Your task to perform on an android device: find snoozed emails in the gmail app Image 0: 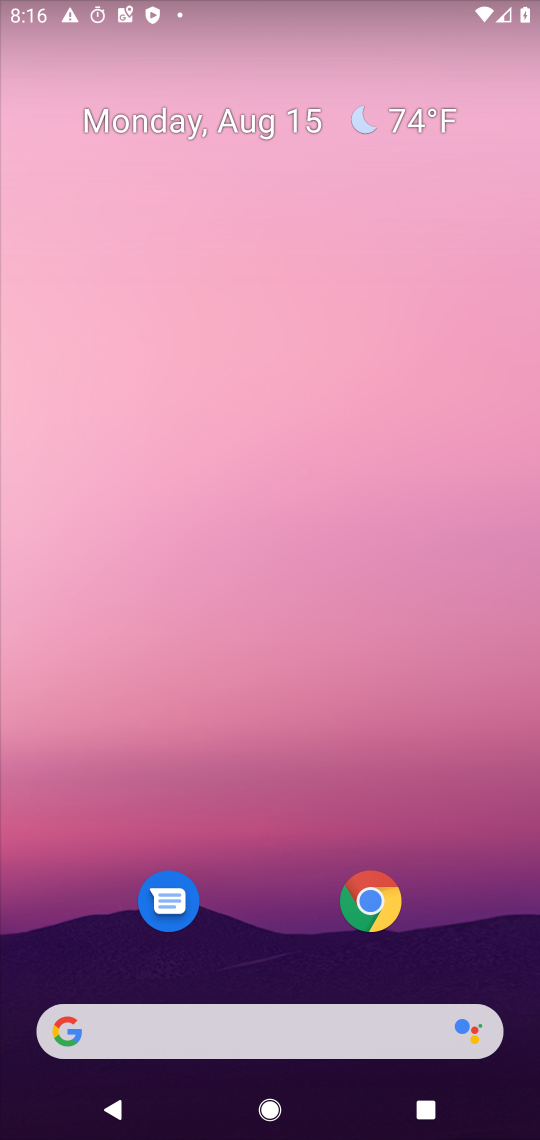
Step 0: drag from (266, 990) to (281, 19)
Your task to perform on an android device: find snoozed emails in the gmail app Image 1: 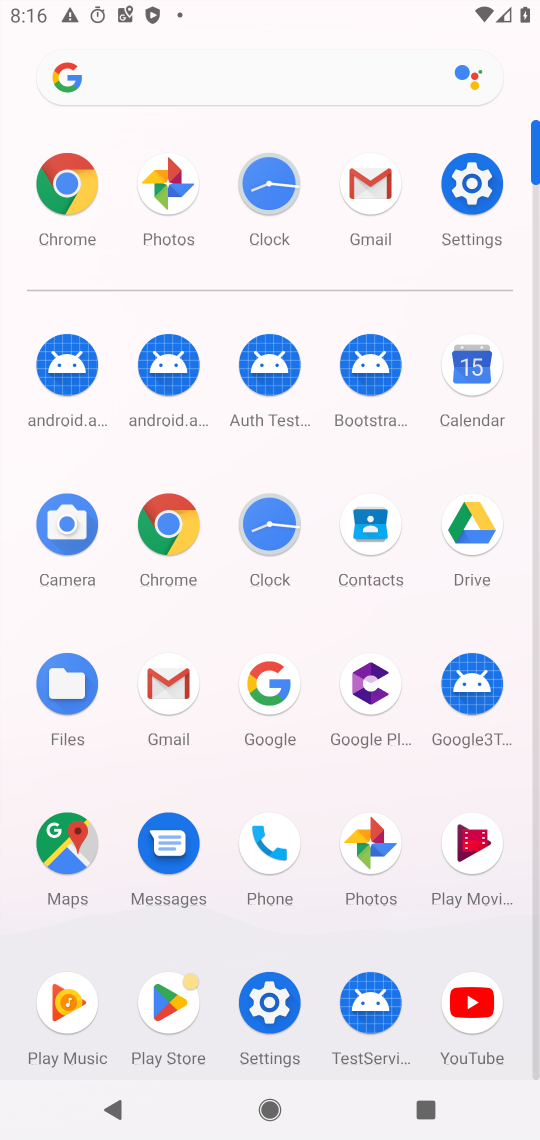
Step 1: click (162, 692)
Your task to perform on an android device: find snoozed emails in the gmail app Image 2: 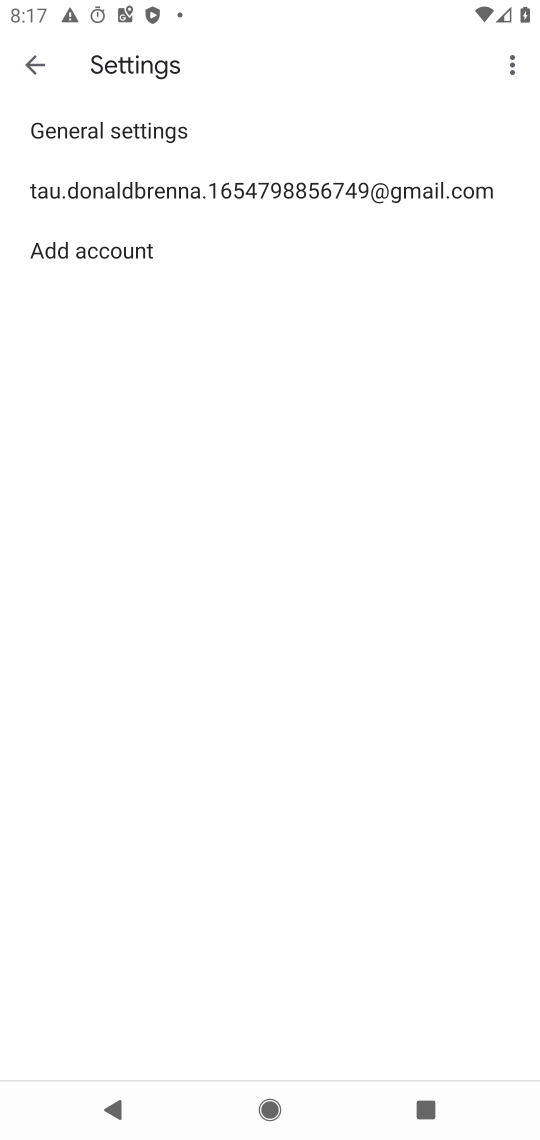
Step 2: click (40, 66)
Your task to perform on an android device: find snoozed emails in the gmail app Image 3: 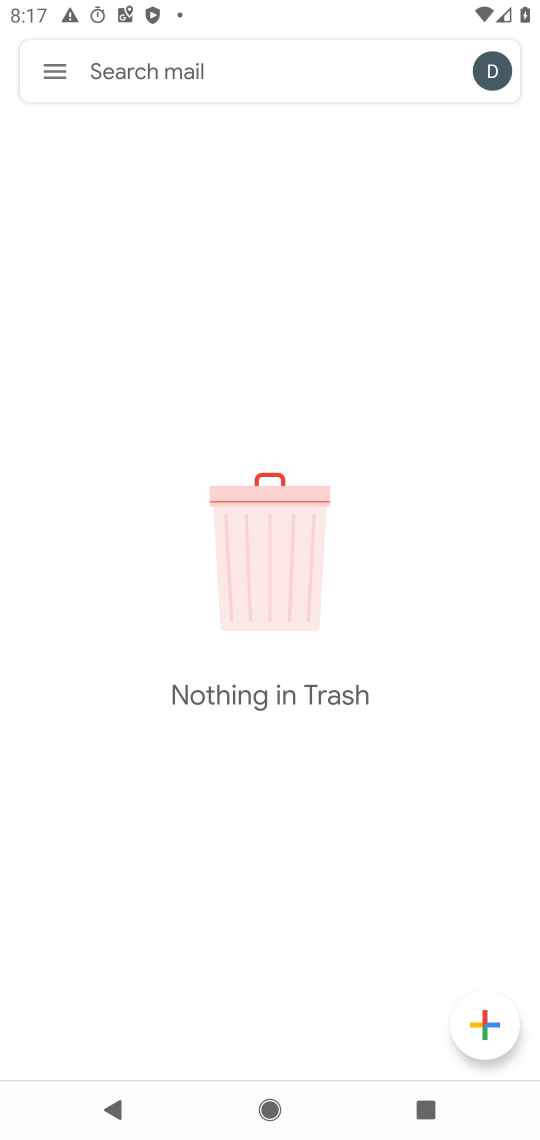
Step 3: click (46, 74)
Your task to perform on an android device: find snoozed emails in the gmail app Image 4: 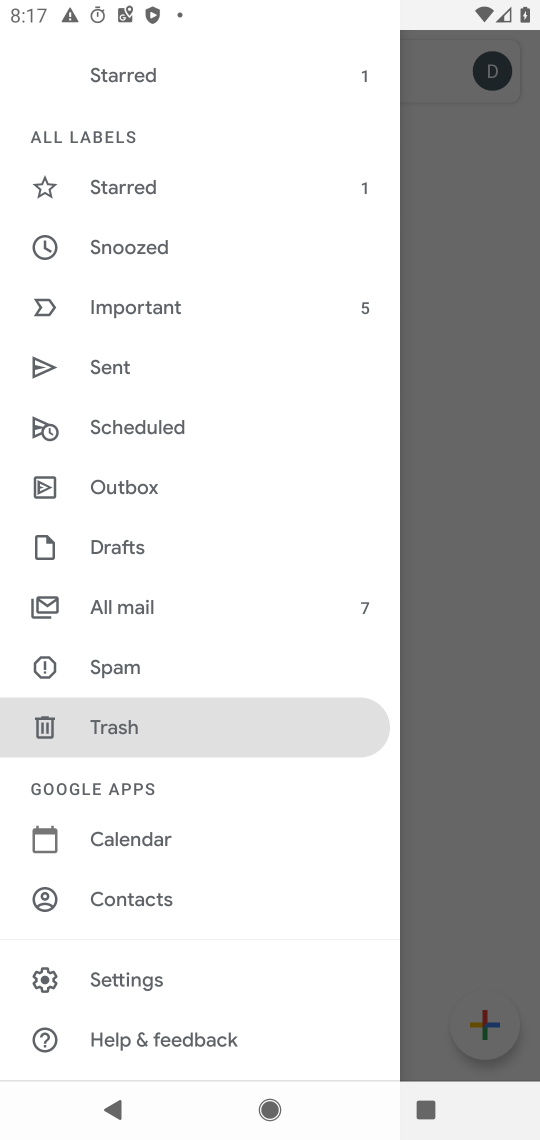
Step 4: click (179, 246)
Your task to perform on an android device: find snoozed emails in the gmail app Image 5: 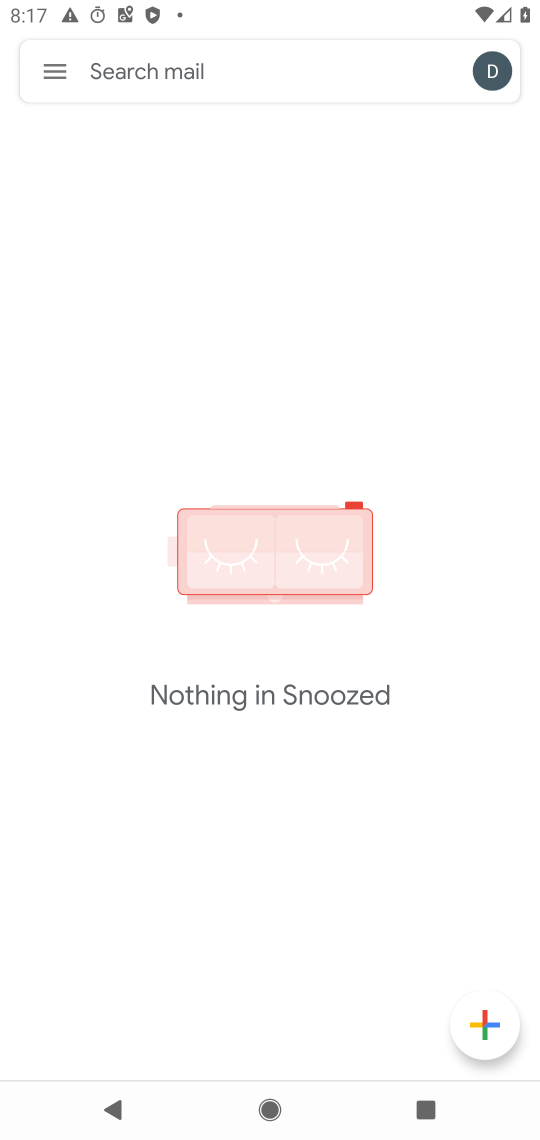
Step 5: task complete